Your task to perform on an android device: toggle notifications settings in the gmail app Image 0: 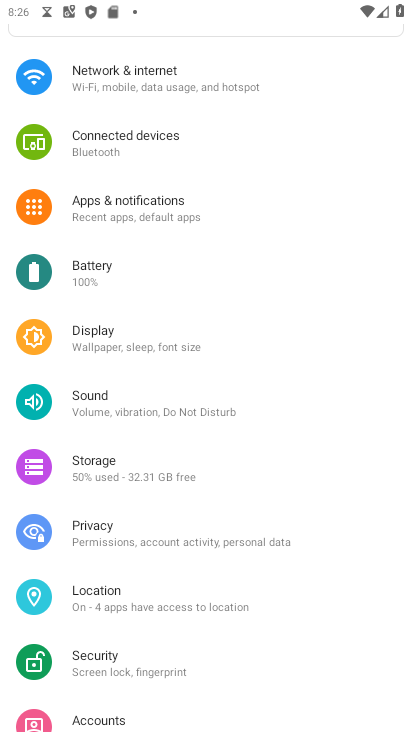
Step 0: press home button
Your task to perform on an android device: toggle notifications settings in the gmail app Image 1: 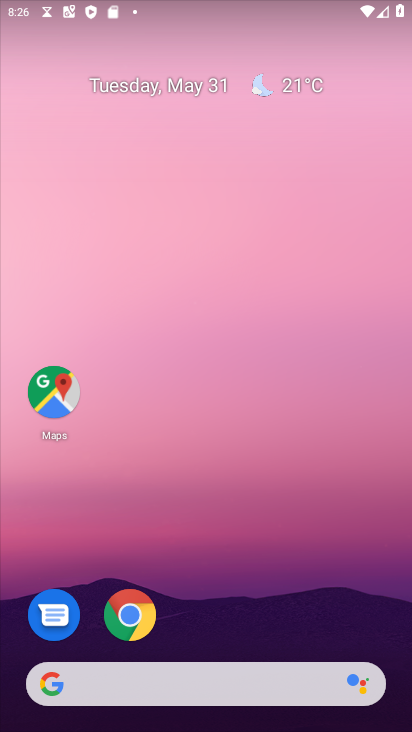
Step 1: drag from (152, 696) to (351, 120)
Your task to perform on an android device: toggle notifications settings in the gmail app Image 2: 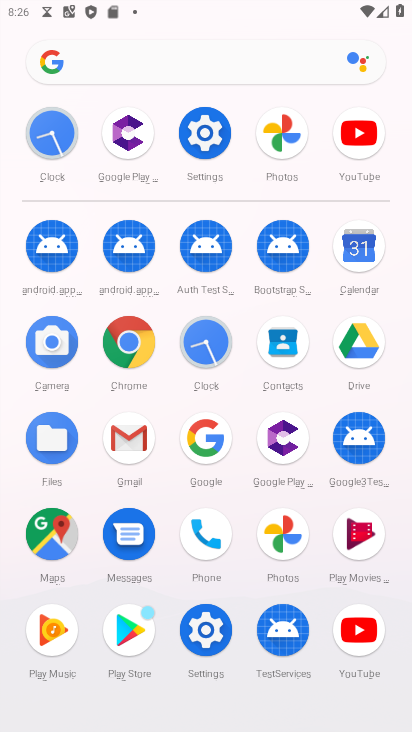
Step 2: click (130, 444)
Your task to perform on an android device: toggle notifications settings in the gmail app Image 3: 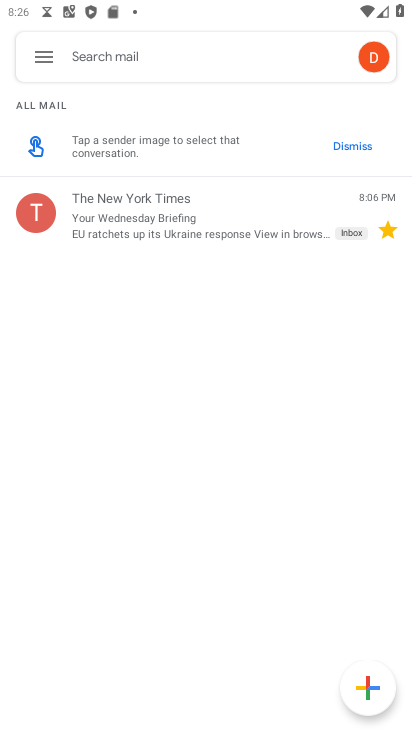
Step 3: click (48, 54)
Your task to perform on an android device: toggle notifications settings in the gmail app Image 4: 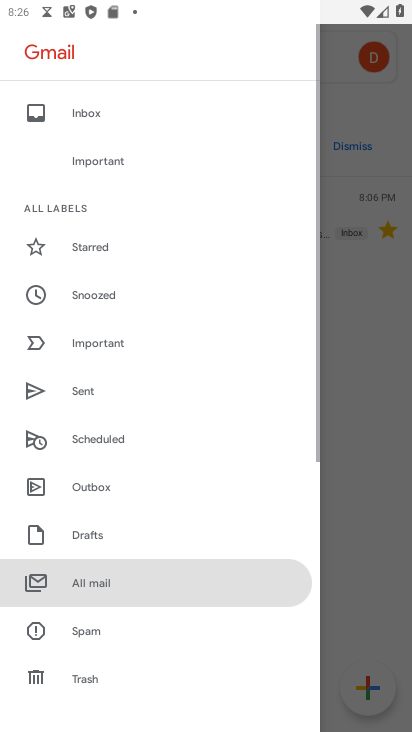
Step 4: drag from (118, 667) to (275, 102)
Your task to perform on an android device: toggle notifications settings in the gmail app Image 5: 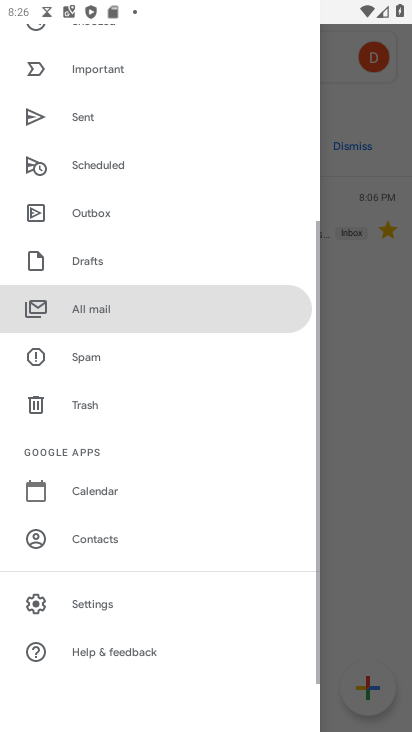
Step 5: click (89, 599)
Your task to perform on an android device: toggle notifications settings in the gmail app Image 6: 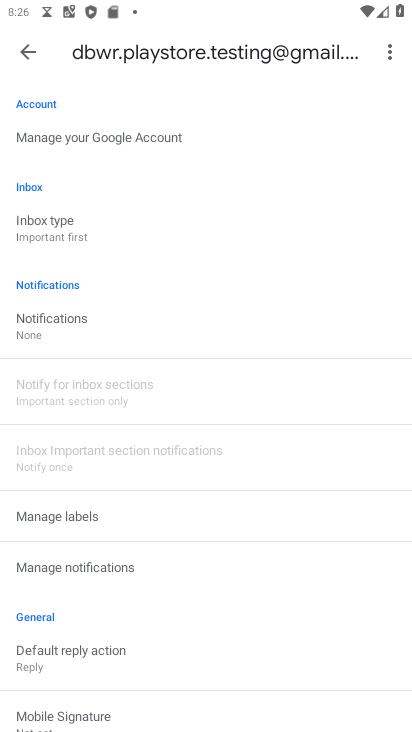
Step 6: click (47, 328)
Your task to perform on an android device: toggle notifications settings in the gmail app Image 7: 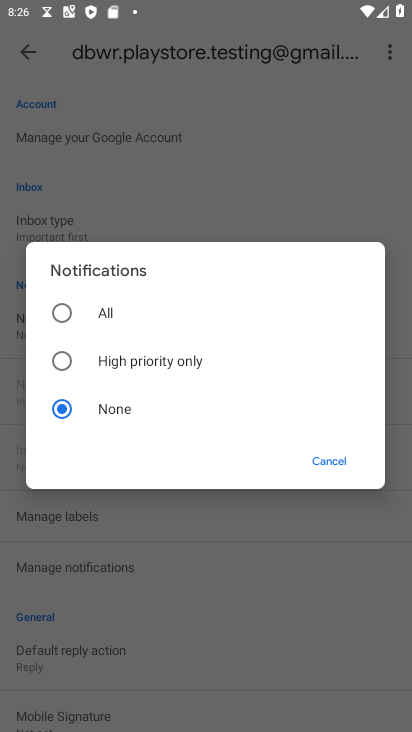
Step 7: click (60, 308)
Your task to perform on an android device: toggle notifications settings in the gmail app Image 8: 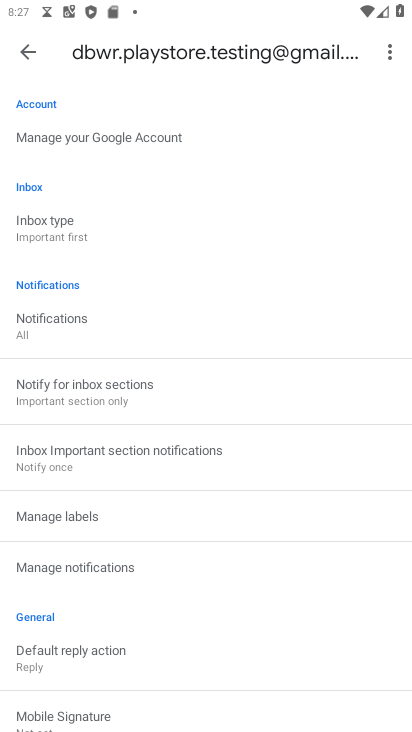
Step 8: task complete